Your task to perform on an android device: toggle javascript in the chrome app Image 0: 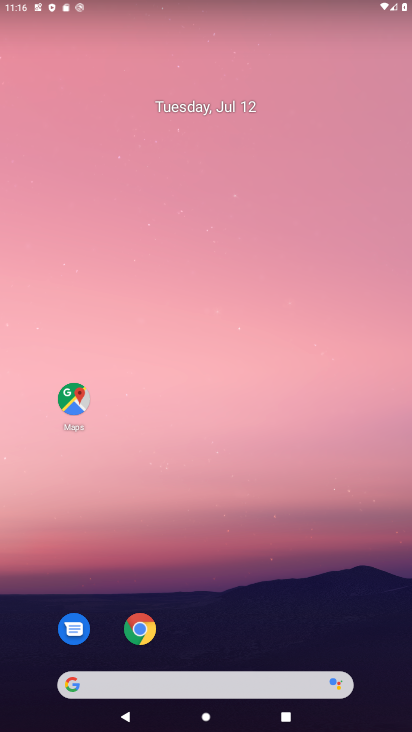
Step 0: drag from (243, 619) to (240, 71)
Your task to perform on an android device: toggle javascript in the chrome app Image 1: 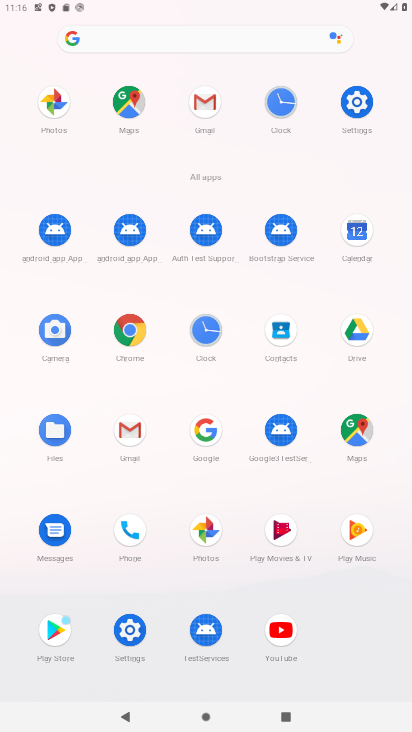
Step 1: click (129, 326)
Your task to perform on an android device: toggle javascript in the chrome app Image 2: 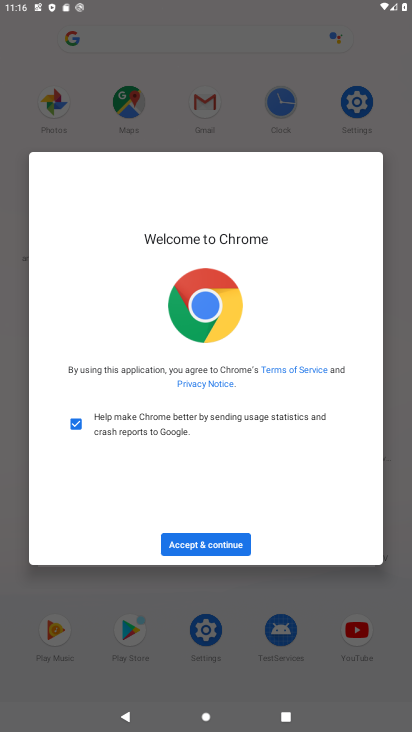
Step 2: click (203, 543)
Your task to perform on an android device: toggle javascript in the chrome app Image 3: 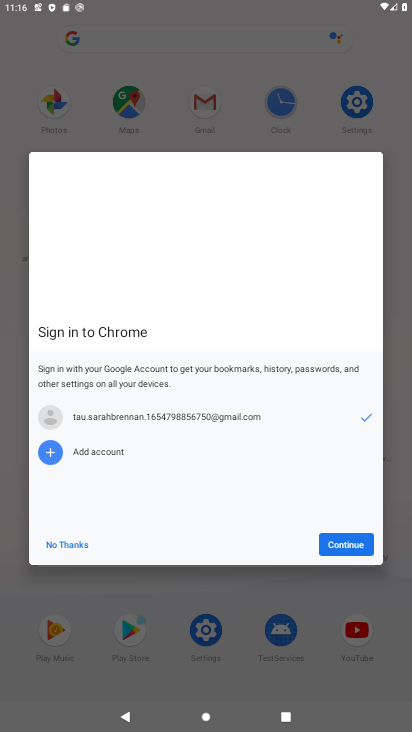
Step 3: click (344, 541)
Your task to perform on an android device: toggle javascript in the chrome app Image 4: 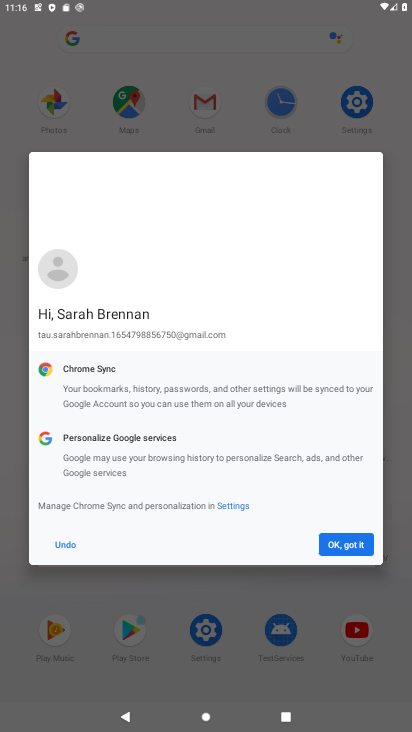
Step 4: click (344, 541)
Your task to perform on an android device: toggle javascript in the chrome app Image 5: 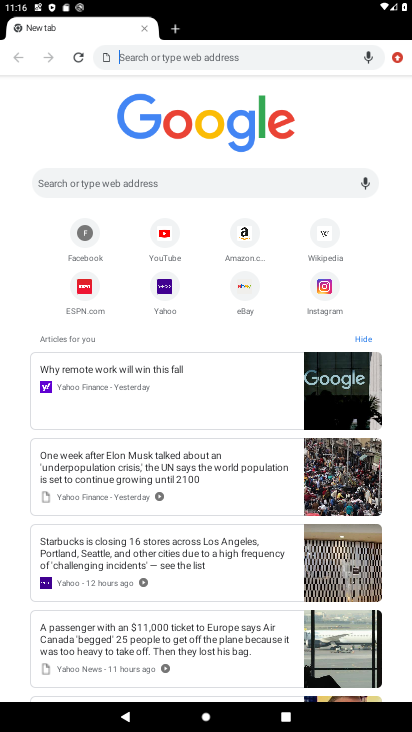
Step 5: click (396, 55)
Your task to perform on an android device: toggle javascript in the chrome app Image 6: 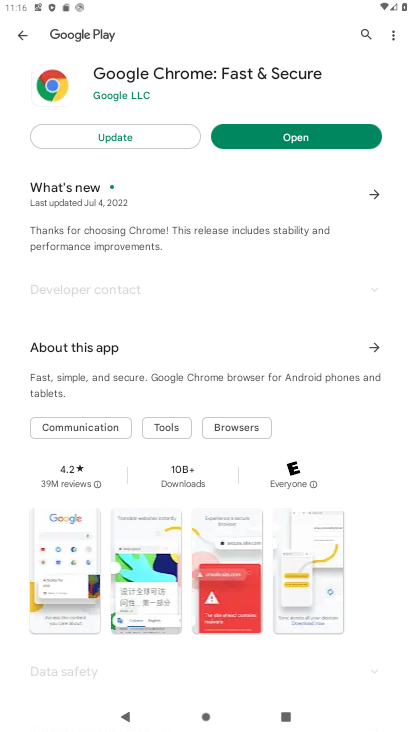
Step 6: press back button
Your task to perform on an android device: toggle javascript in the chrome app Image 7: 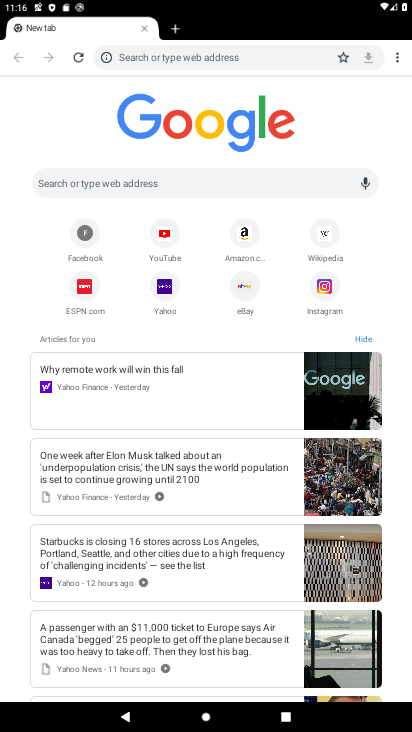
Step 7: press back button
Your task to perform on an android device: toggle javascript in the chrome app Image 8: 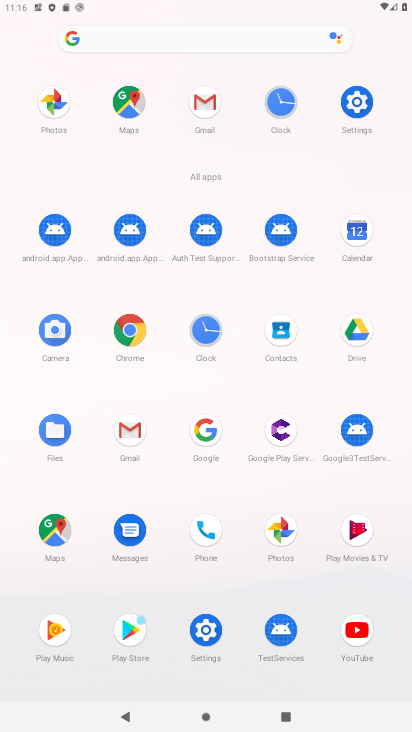
Step 8: click (129, 324)
Your task to perform on an android device: toggle javascript in the chrome app Image 9: 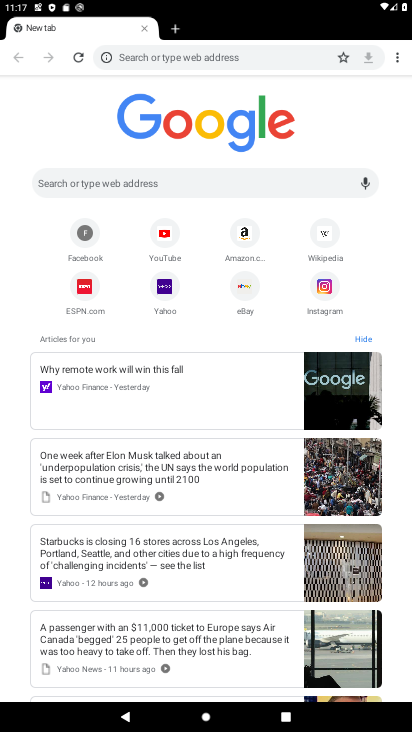
Step 9: click (399, 57)
Your task to perform on an android device: toggle javascript in the chrome app Image 10: 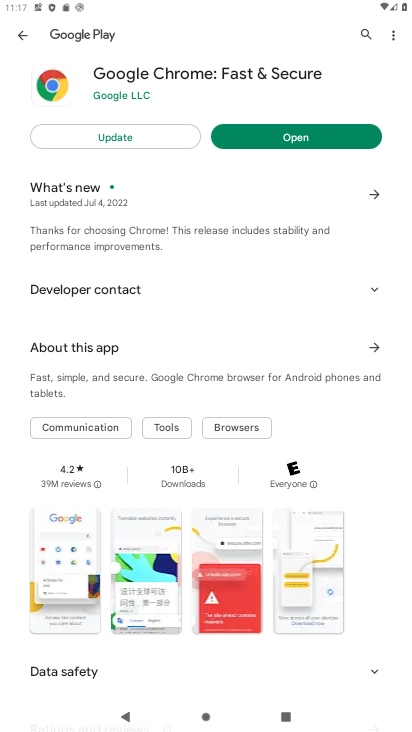
Step 10: click (15, 36)
Your task to perform on an android device: toggle javascript in the chrome app Image 11: 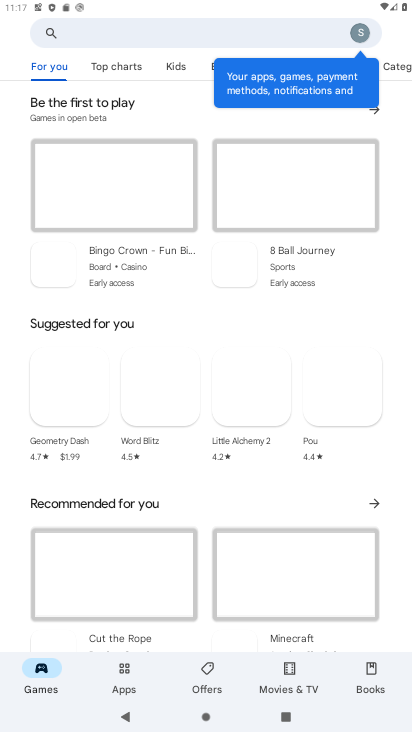
Step 11: press back button
Your task to perform on an android device: toggle javascript in the chrome app Image 12: 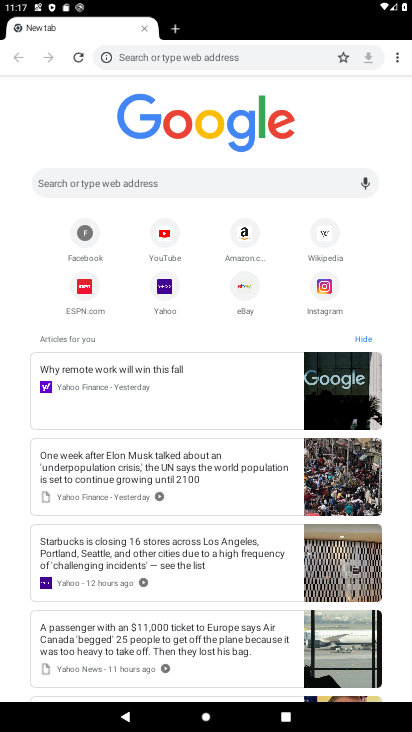
Step 12: click (394, 60)
Your task to perform on an android device: toggle javascript in the chrome app Image 13: 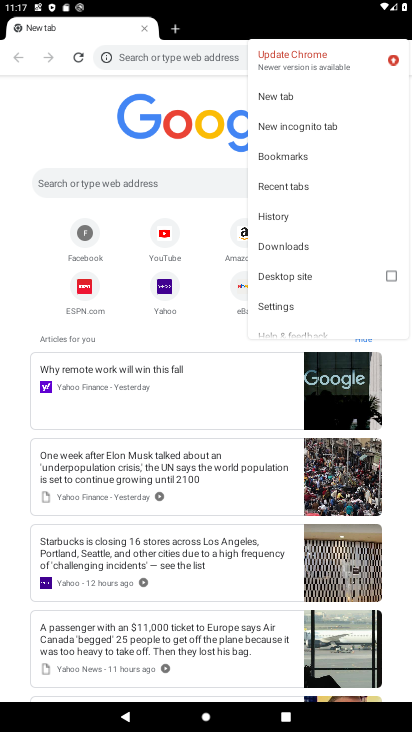
Step 13: click (296, 306)
Your task to perform on an android device: toggle javascript in the chrome app Image 14: 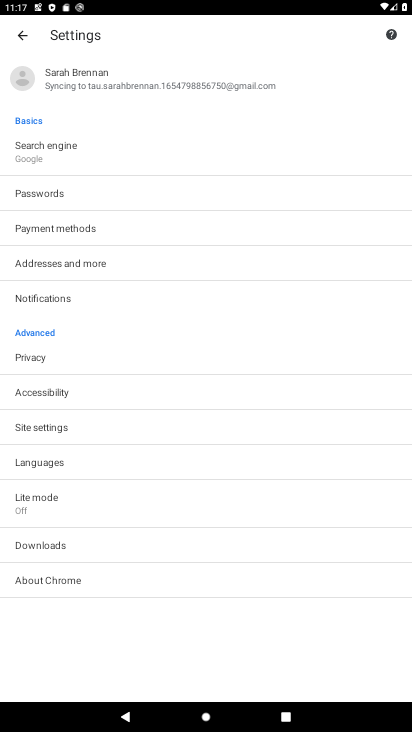
Step 14: click (73, 420)
Your task to perform on an android device: toggle javascript in the chrome app Image 15: 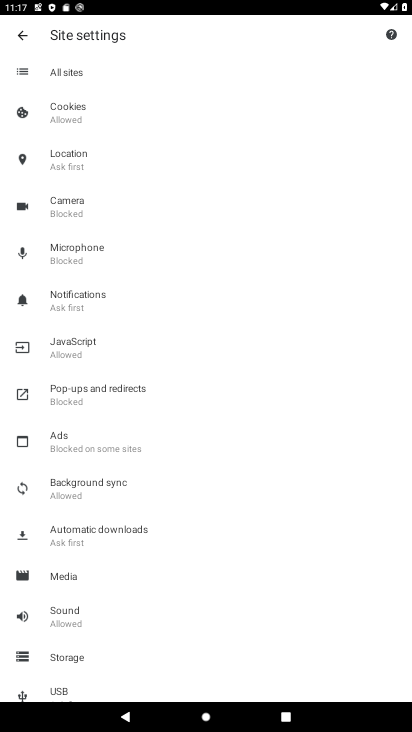
Step 15: click (109, 345)
Your task to perform on an android device: toggle javascript in the chrome app Image 16: 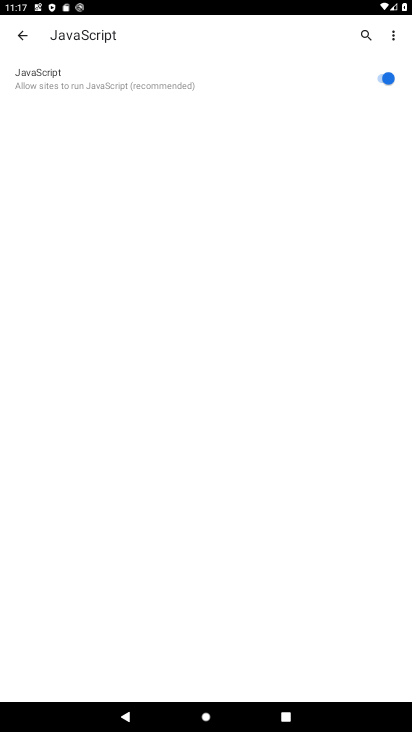
Step 16: click (378, 72)
Your task to perform on an android device: toggle javascript in the chrome app Image 17: 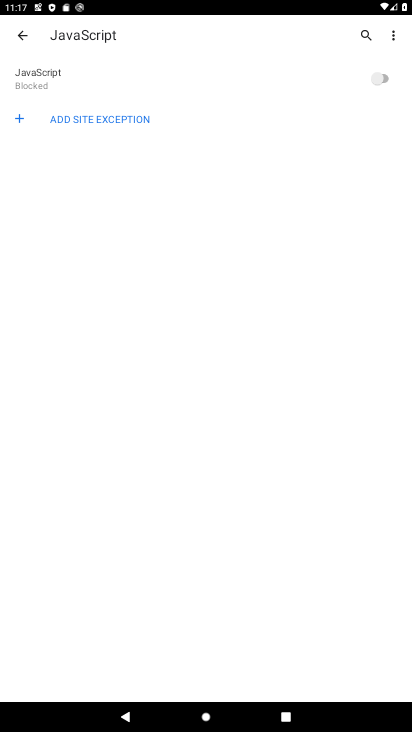
Step 17: task complete